Your task to perform on an android device: When is my next appointment? Image 0: 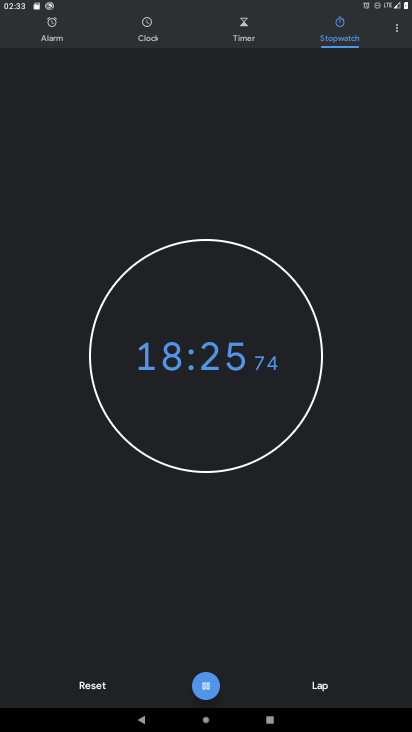
Step 0: press home button
Your task to perform on an android device: When is my next appointment? Image 1: 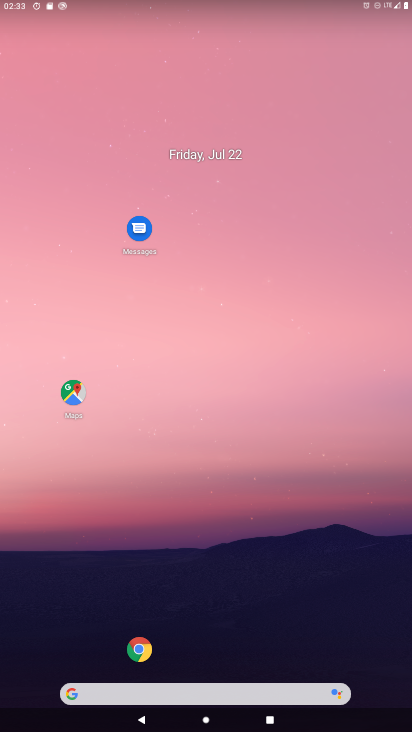
Step 1: drag from (54, 624) to (236, 133)
Your task to perform on an android device: When is my next appointment? Image 2: 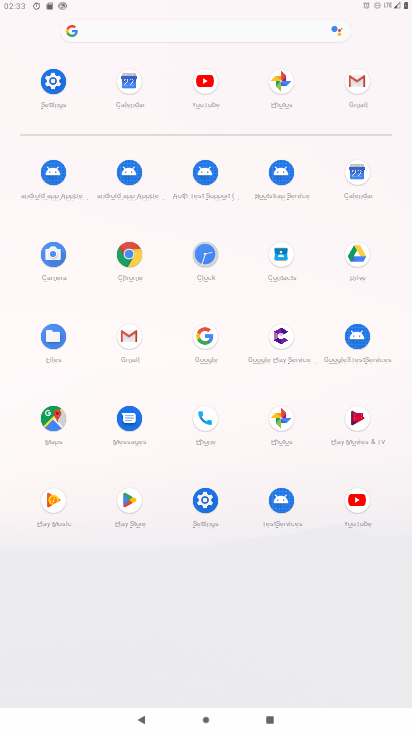
Step 2: click (355, 172)
Your task to perform on an android device: When is my next appointment? Image 3: 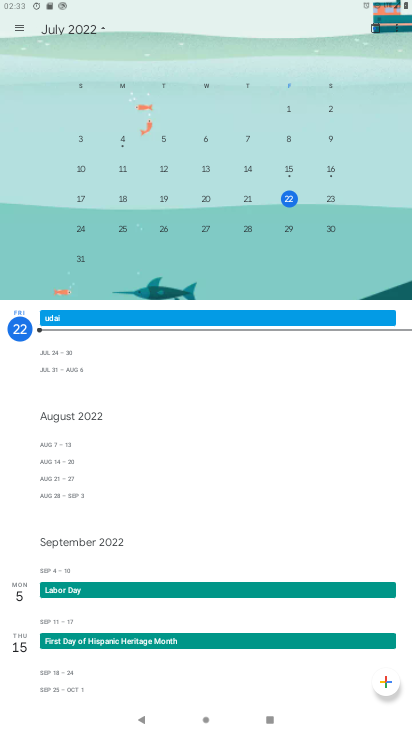
Step 3: task complete